Your task to perform on an android device: change notifications settings Image 0: 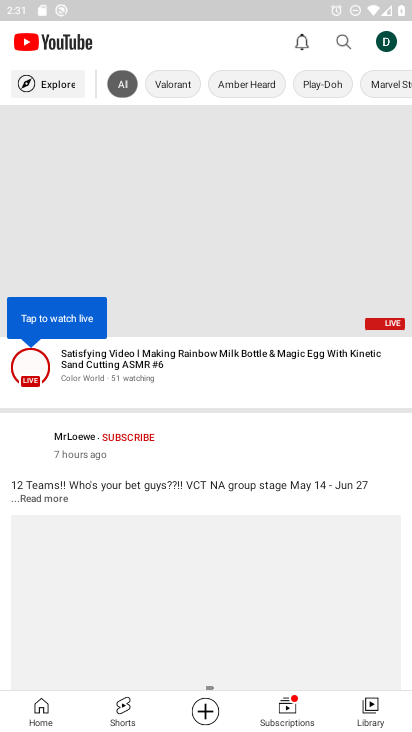
Step 0: press home button
Your task to perform on an android device: change notifications settings Image 1: 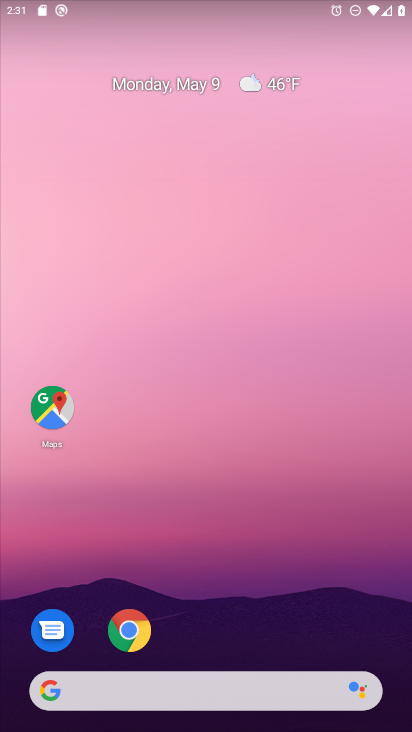
Step 1: drag from (215, 727) to (215, 456)
Your task to perform on an android device: change notifications settings Image 2: 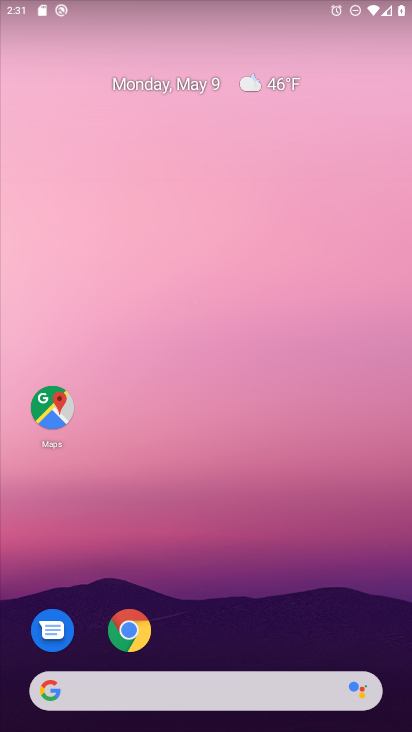
Step 2: drag from (235, 720) to (190, 264)
Your task to perform on an android device: change notifications settings Image 3: 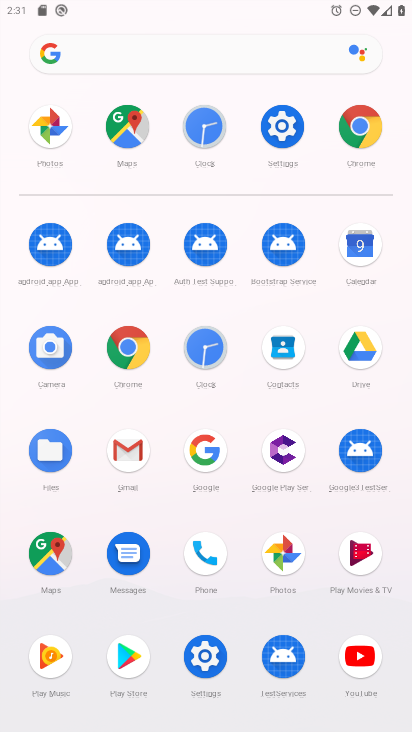
Step 3: click (281, 124)
Your task to perform on an android device: change notifications settings Image 4: 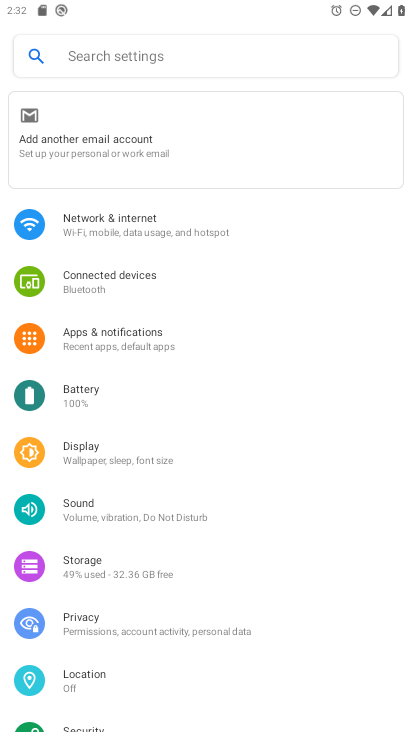
Step 4: click (154, 58)
Your task to perform on an android device: change notifications settings Image 5: 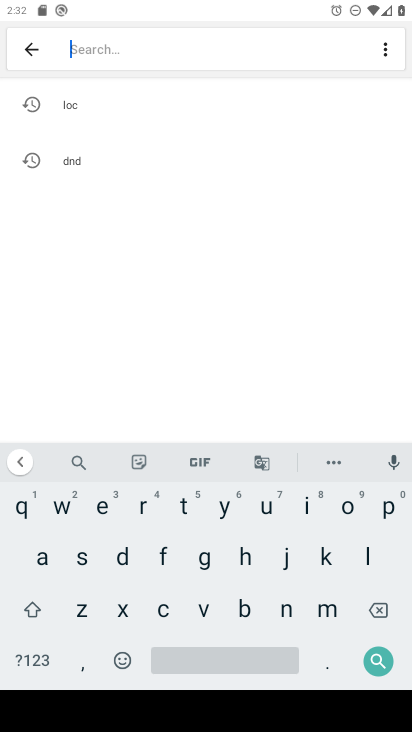
Step 5: click (284, 614)
Your task to perform on an android device: change notifications settings Image 6: 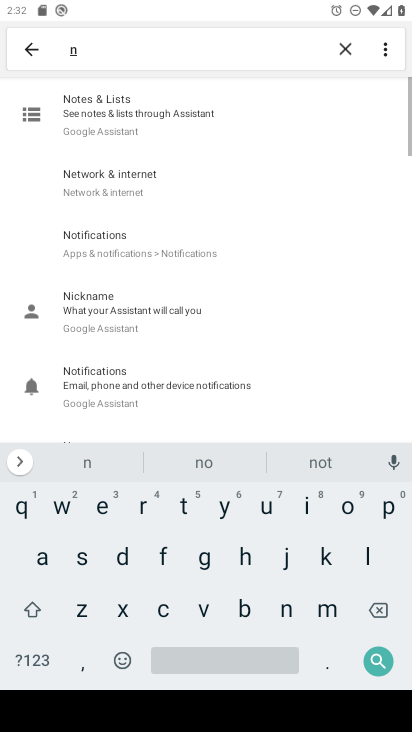
Step 6: click (347, 519)
Your task to perform on an android device: change notifications settings Image 7: 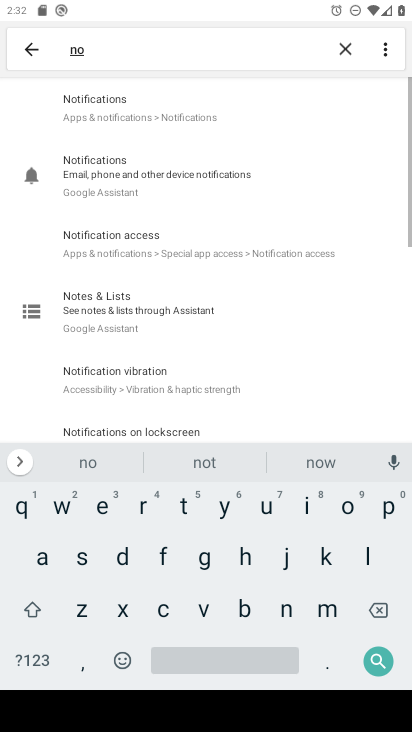
Step 7: click (181, 508)
Your task to perform on an android device: change notifications settings Image 8: 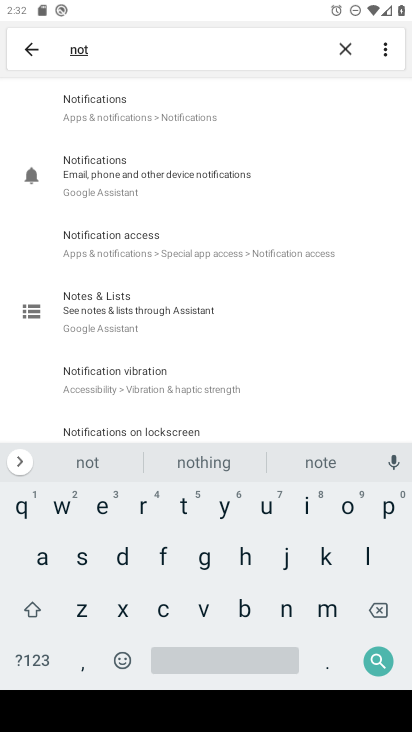
Step 8: click (122, 117)
Your task to perform on an android device: change notifications settings Image 9: 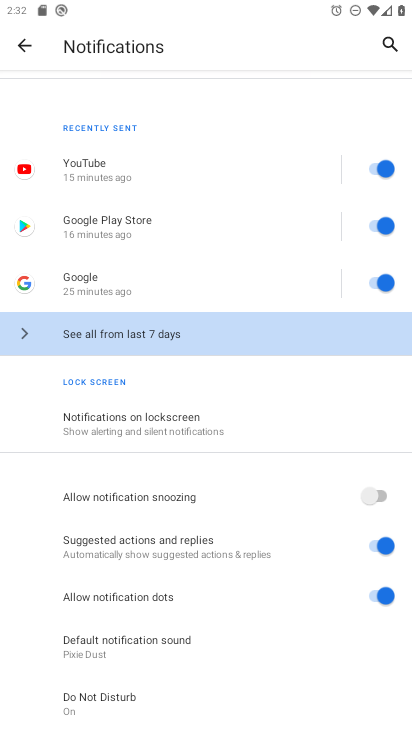
Step 9: click (119, 427)
Your task to perform on an android device: change notifications settings Image 10: 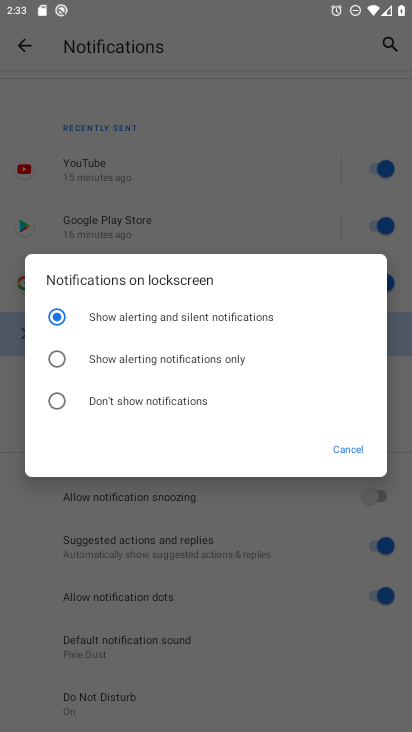
Step 10: task complete